Your task to perform on an android device: Open Youtube and go to "Your channel" Image 0: 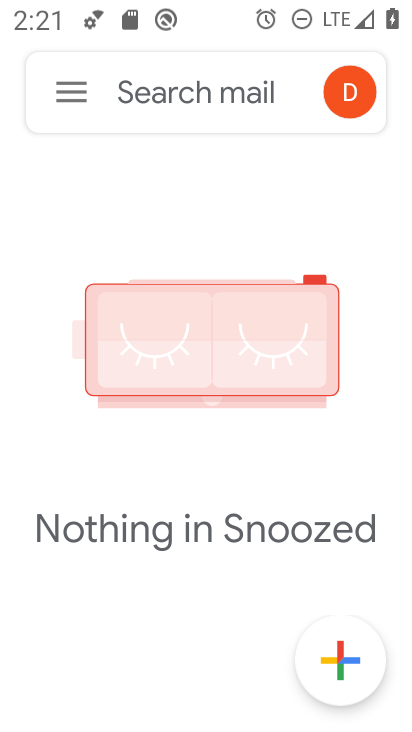
Step 0: press home button
Your task to perform on an android device: Open Youtube and go to "Your channel" Image 1: 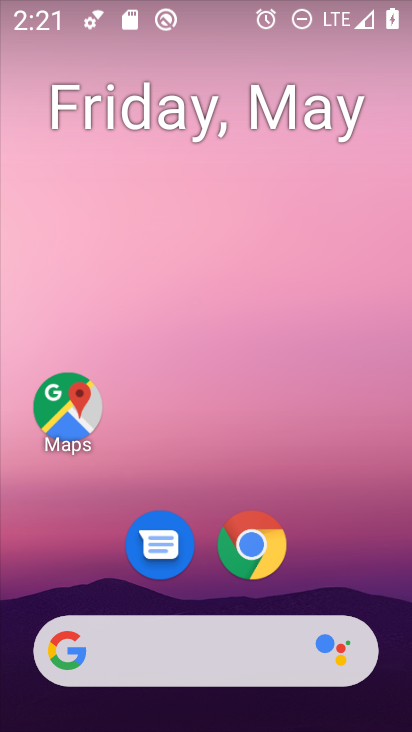
Step 1: drag from (343, 483) to (348, 224)
Your task to perform on an android device: Open Youtube and go to "Your channel" Image 2: 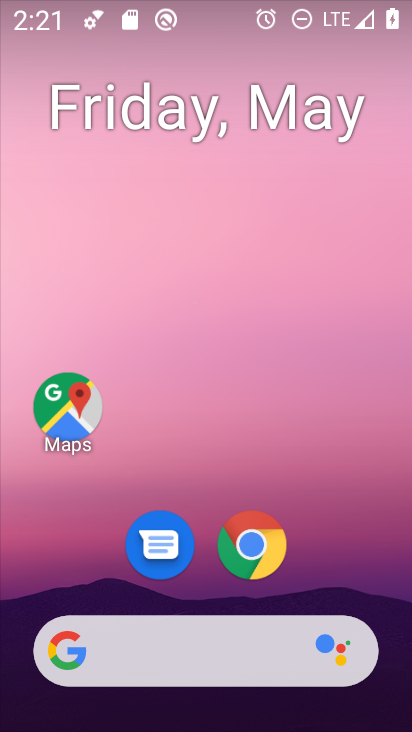
Step 2: drag from (310, 577) to (364, 104)
Your task to perform on an android device: Open Youtube and go to "Your channel" Image 3: 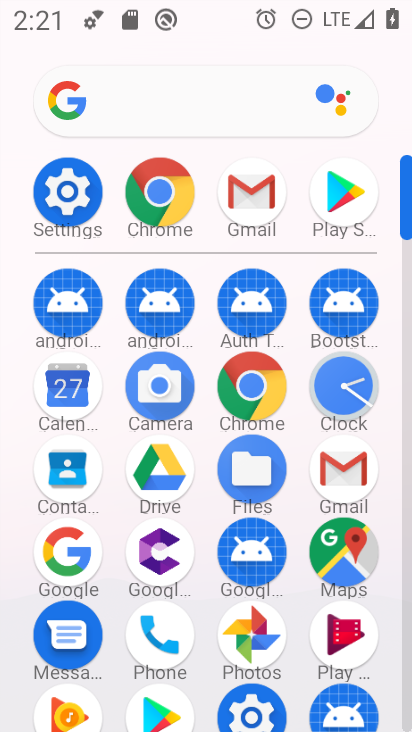
Step 3: drag from (311, 606) to (324, 279)
Your task to perform on an android device: Open Youtube and go to "Your channel" Image 4: 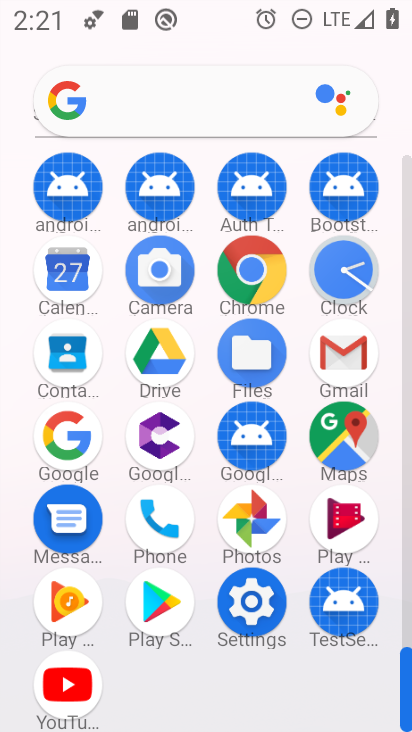
Step 4: click (63, 696)
Your task to perform on an android device: Open Youtube and go to "Your channel" Image 5: 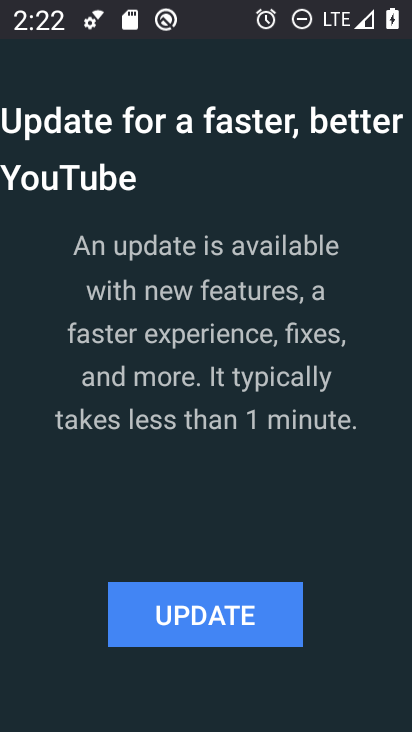
Step 5: task complete